Your task to perform on an android device: empty trash in google photos Image 0: 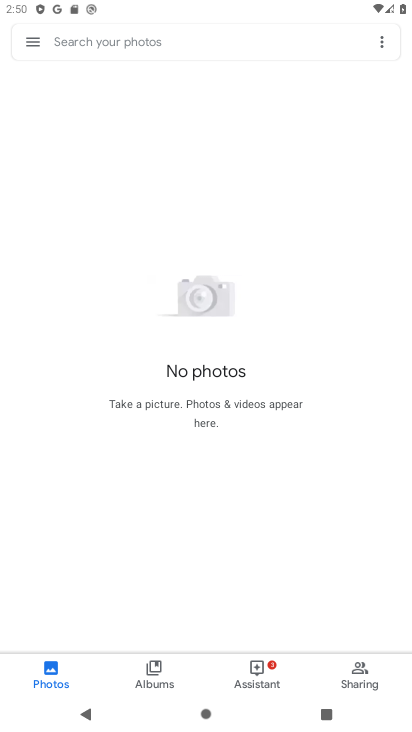
Step 0: click (21, 35)
Your task to perform on an android device: empty trash in google photos Image 1: 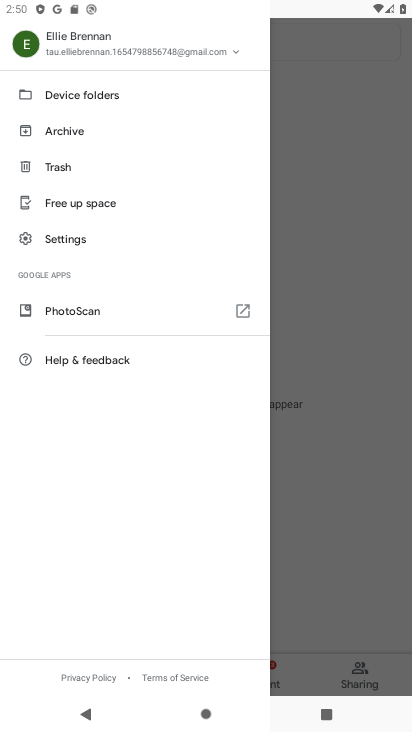
Step 1: click (57, 177)
Your task to perform on an android device: empty trash in google photos Image 2: 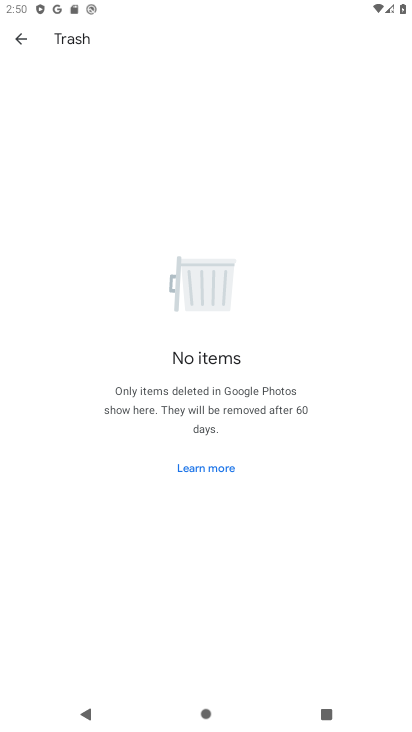
Step 2: task complete